Your task to perform on an android device: turn on translation in the chrome app Image 0: 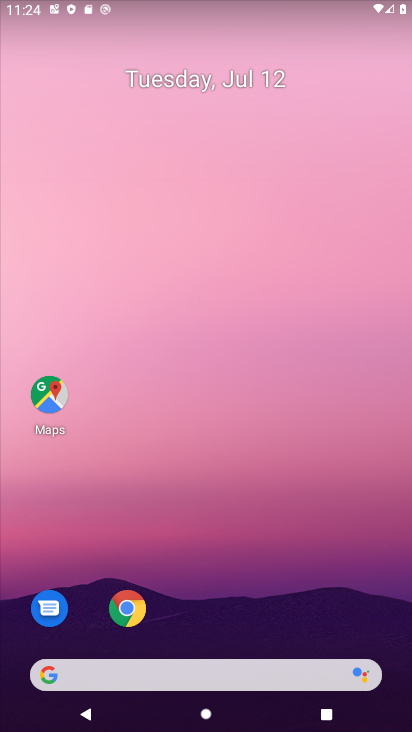
Step 0: click (129, 606)
Your task to perform on an android device: turn on translation in the chrome app Image 1: 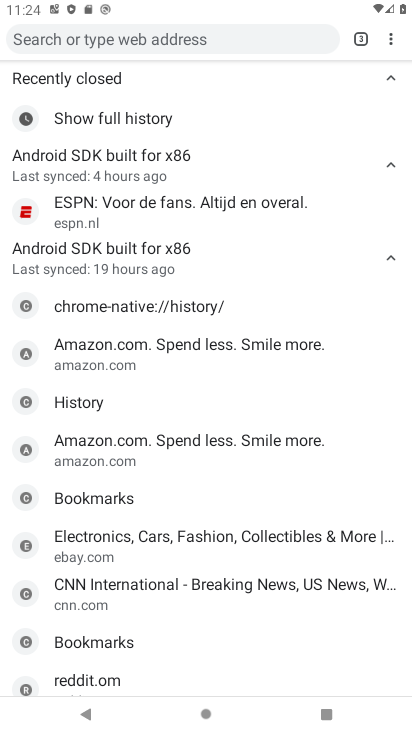
Step 1: click (389, 41)
Your task to perform on an android device: turn on translation in the chrome app Image 2: 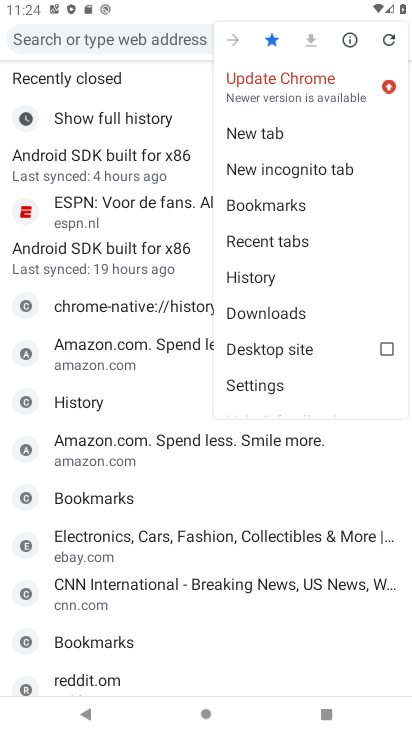
Step 2: click (250, 385)
Your task to perform on an android device: turn on translation in the chrome app Image 3: 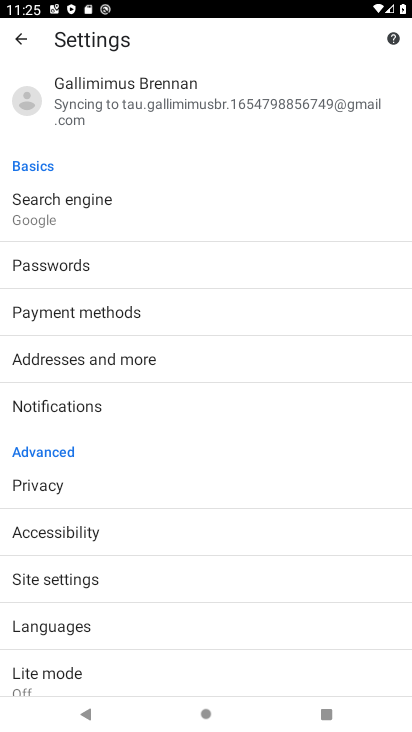
Step 3: click (49, 623)
Your task to perform on an android device: turn on translation in the chrome app Image 4: 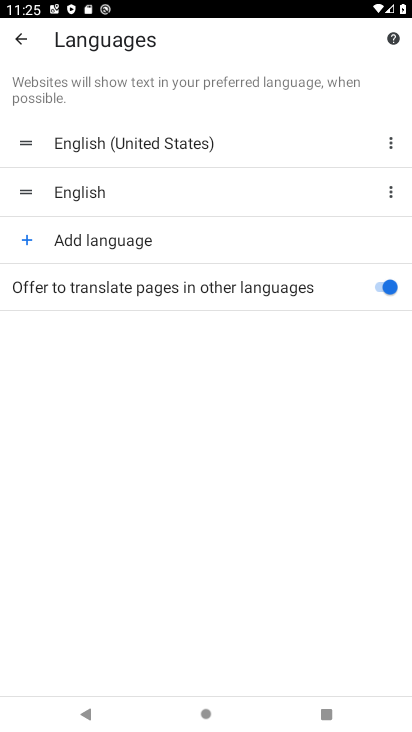
Step 4: task complete